Your task to perform on an android device: Open Wikipedia Image 0: 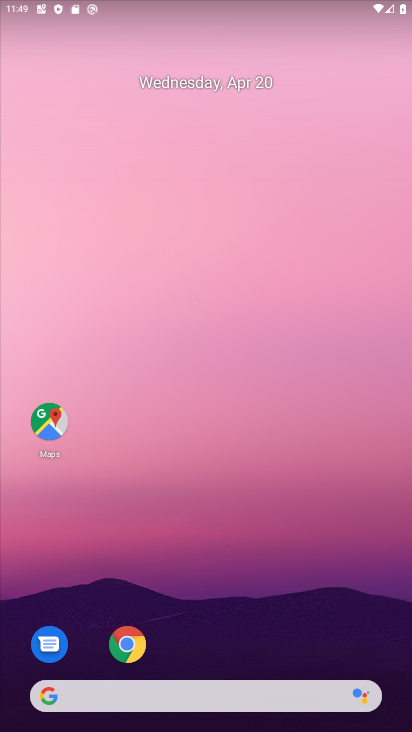
Step 0: click (125, 643)
Your task to perform on an android device: Open Wikipedia Image 1: 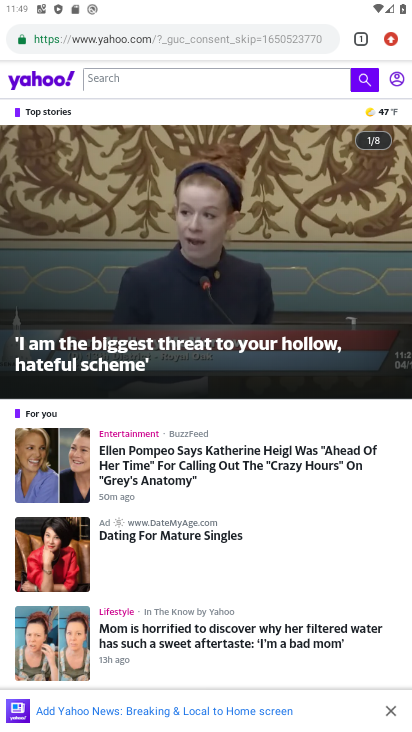
Step 1: click (390, 41)
Your task to perform on an android device: Open Wikipedia Image 2: 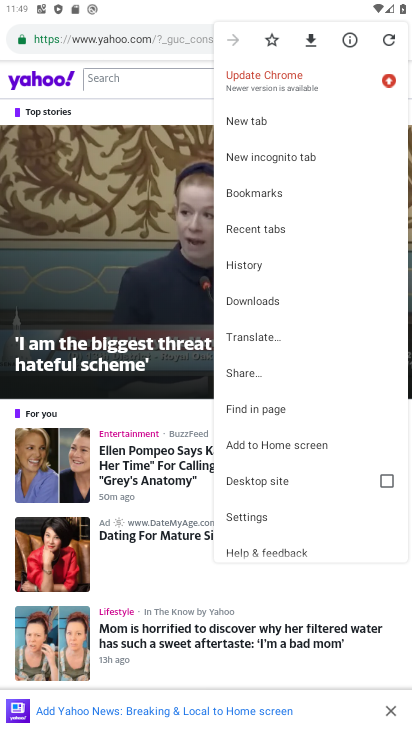
Step 2: click (88, 39)
Your task to perform on an android device: Open Wikipedia Image 3: 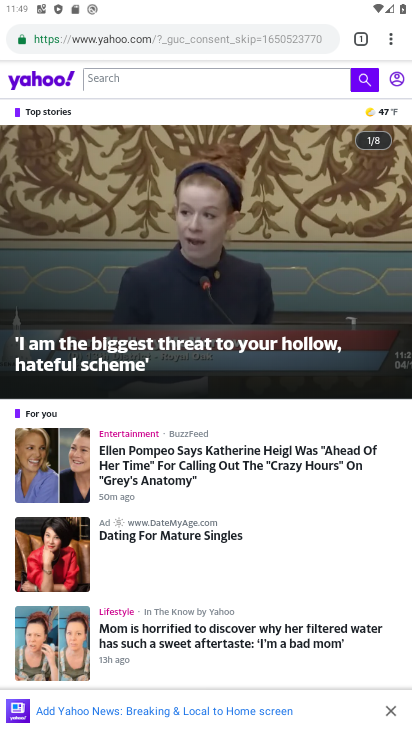
Step 3: click (88, 39)
Your task to perform on an android device: Open Wikipedia Image 4: 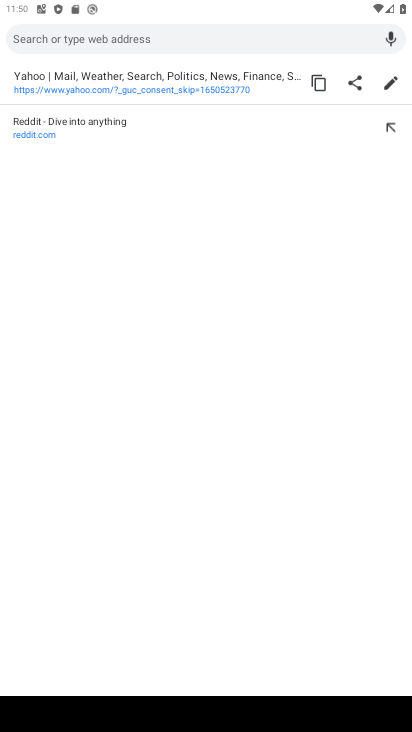
Step 4: type "wikipedia"
Your task to perform on an android device: Open Wikipedia Image 5: 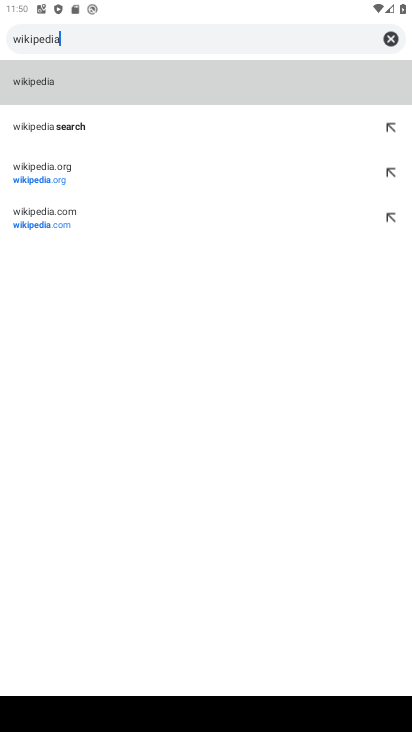
Step 5: click (41, 212)
Your task to perform on an android device: Open Wikipedia Image 6: 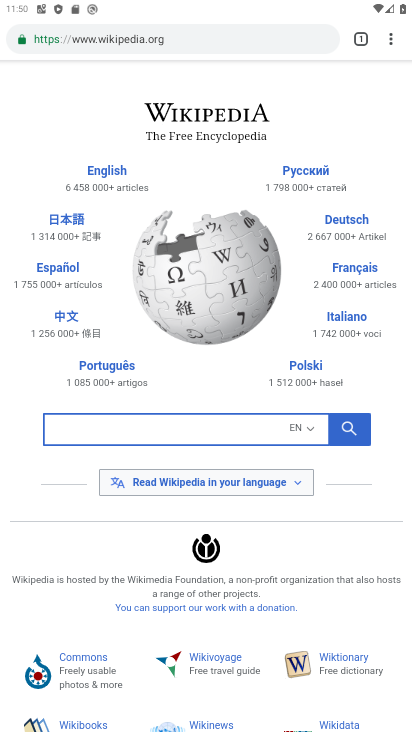
Step 6: task complete